Your task to perform on an android device: move a message to another label in the gmail app Image 0: 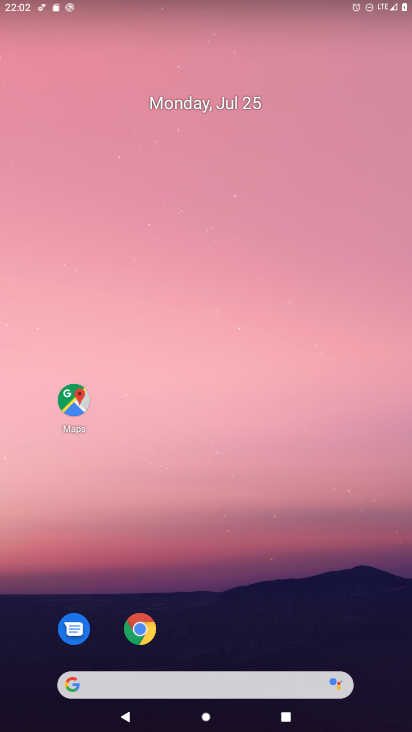
Step 0: drag from (186, 694) to (184, 130)
Your task to perform on an android device: move a message to another label in the gmail app Image 1: 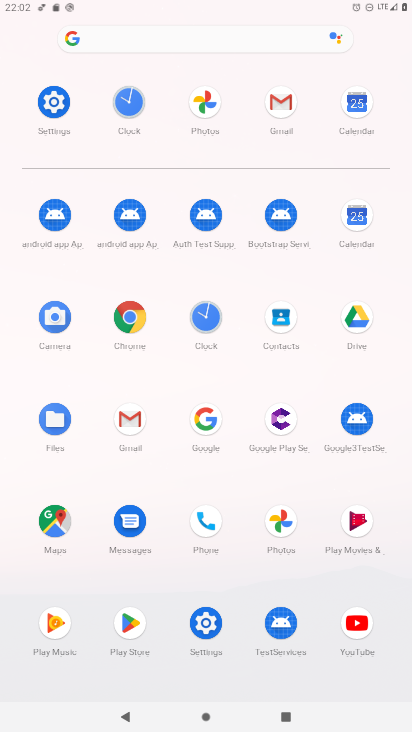
Step 1: click (132, 416)
Your task to perform on an android device: move a message to another label in the gmail app Image 2: 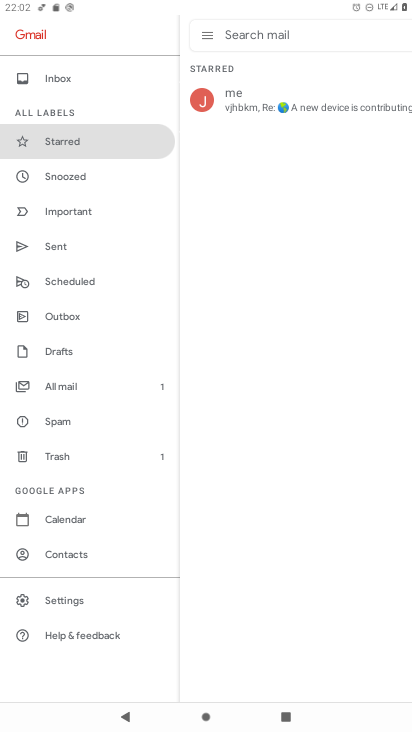
Step 2: click (294, 102)
Your task to perform on an android device: move a message to another label in the gmail app Image 3: 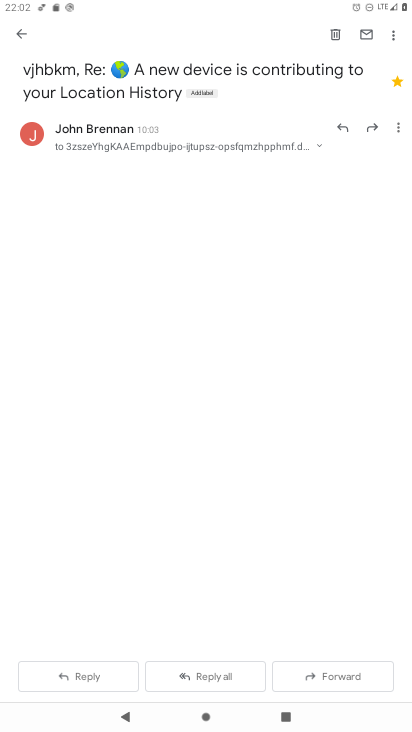
Step 3: click (393, 40)
Your task to perform on an android device: move a message to another label in the gmail app Image 4: 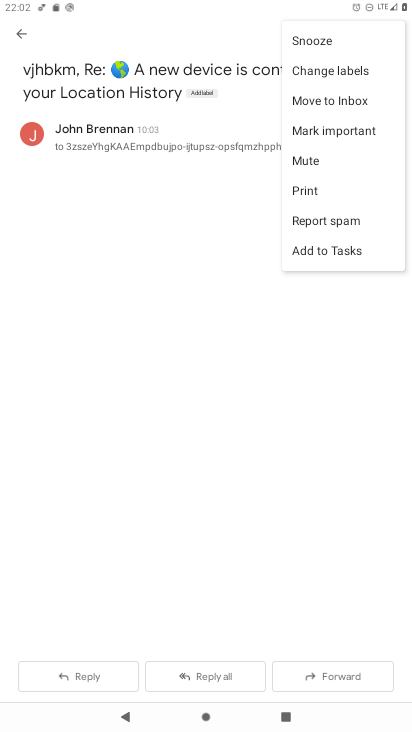
Step 4: click (353, 97)
Your task to perform on an android device: move a message to another label in the gmail app Image 5: 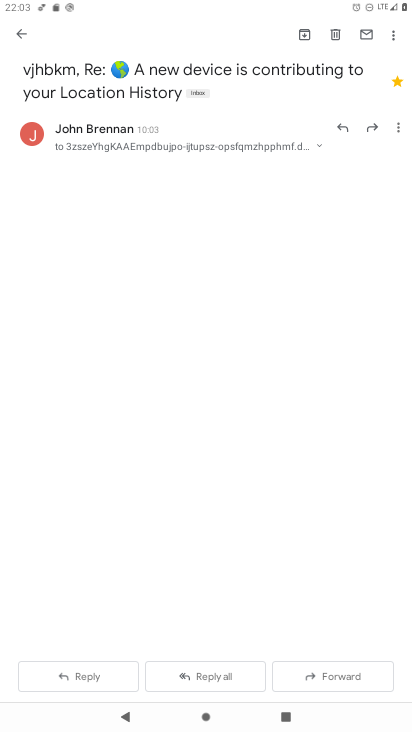
Step 5: task complete